Your task to perform on an android device: show emergency info Image 0: 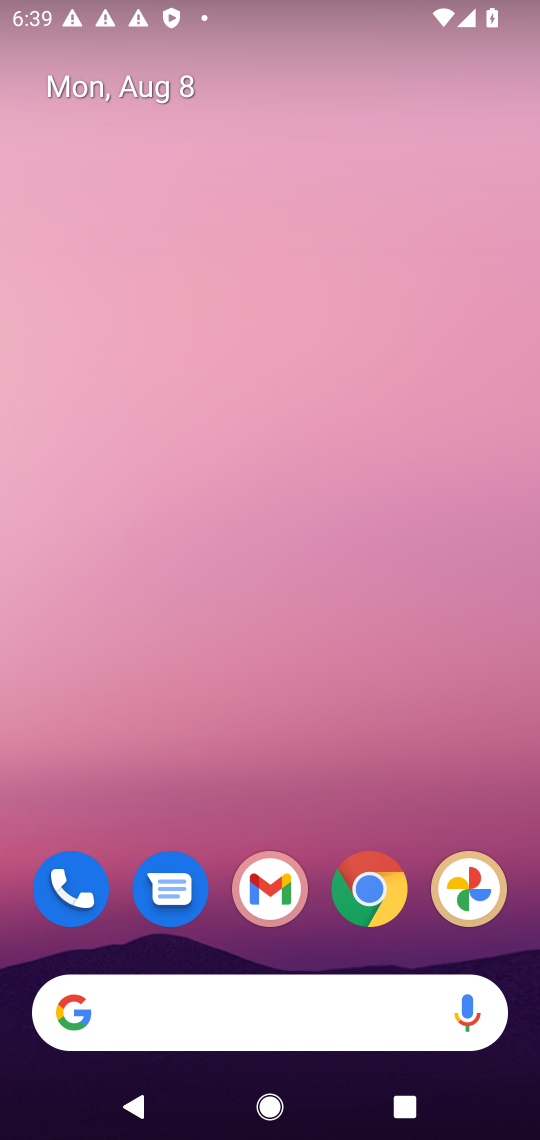
Step 0: drag from (518, 1057) to (433, 72)
Your task to perform on an android device: show emergency info Image 1: 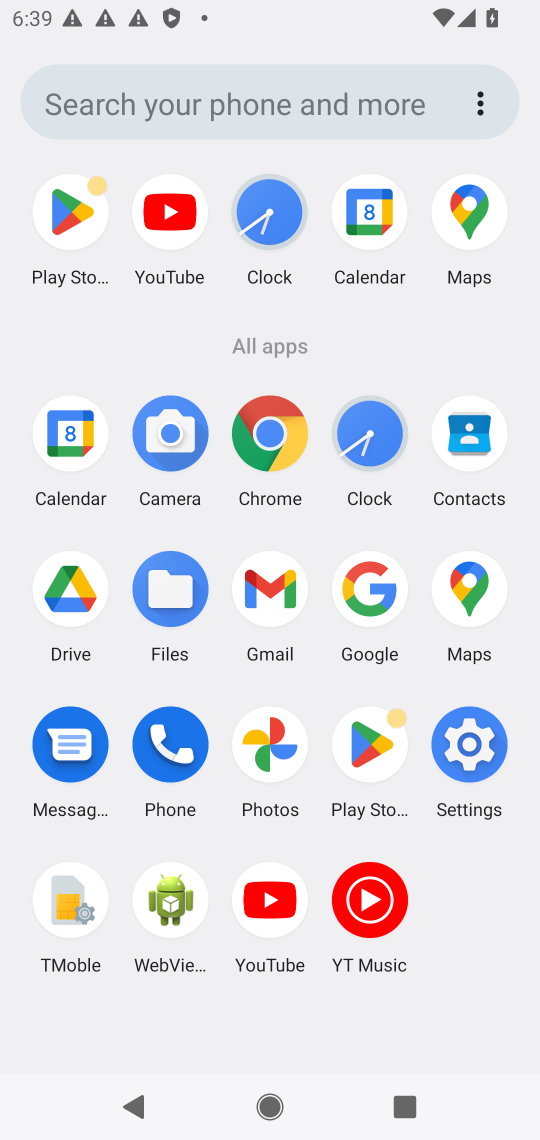
Step 1: click (472, 729)
Your task to perform on an android device: show emergency info Image 2: 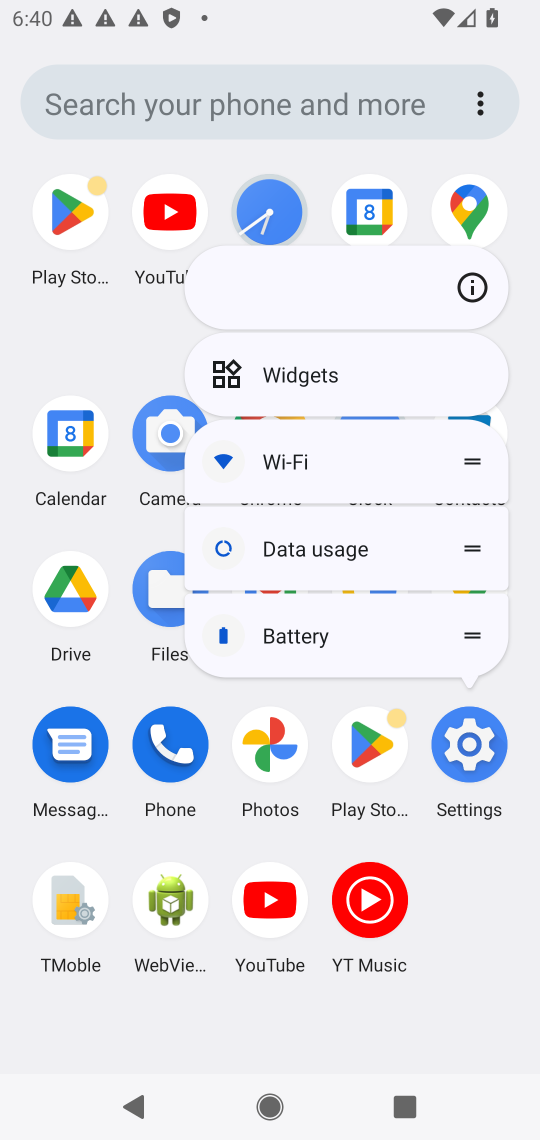
Step 2: click (463, 753)
Your task to perform on an android device: show emergency info Image 3: 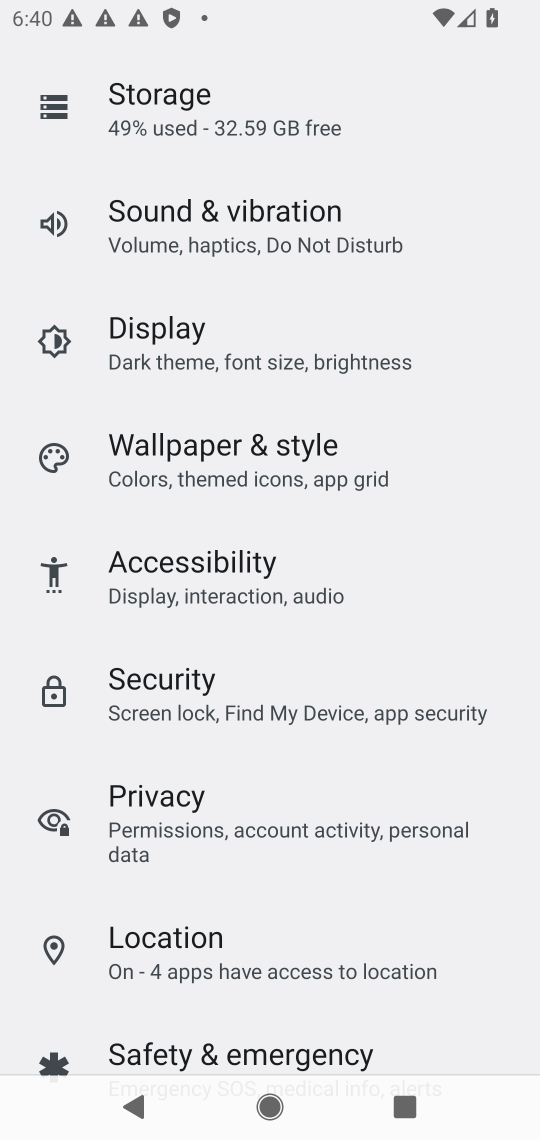
Step 3: drag from (377, 1026) to (421, 396)
Your task to perform on an android device: show emergency info Image 4: 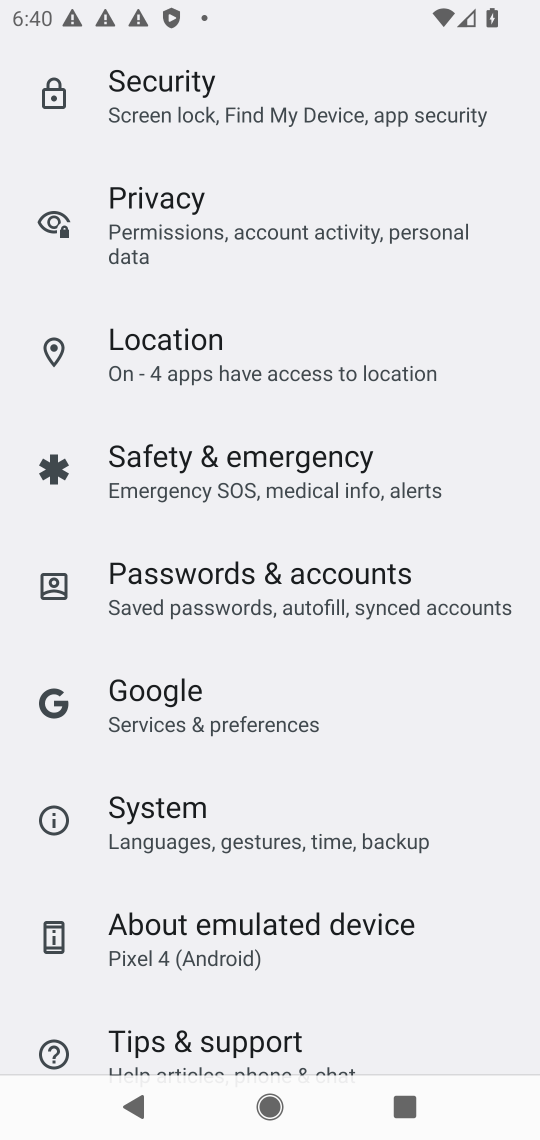
Step 4: click (228, 937)
Your task to perform on an android device: show emergency info Image 5: 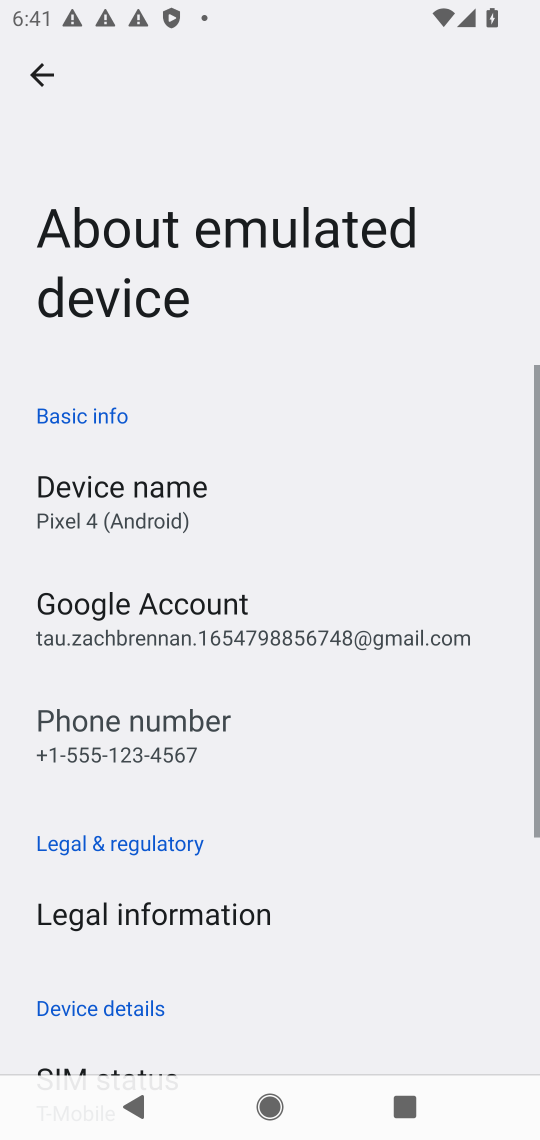
Step 5: task complete